Your task to perform on an android device: Open the stopwatch Image 0: 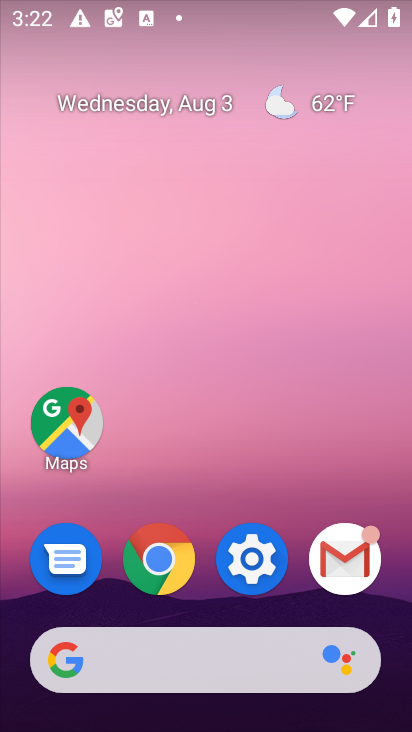
Step 0: press home button
Your task to perform on an android device: Open the stopwatch Image 1: 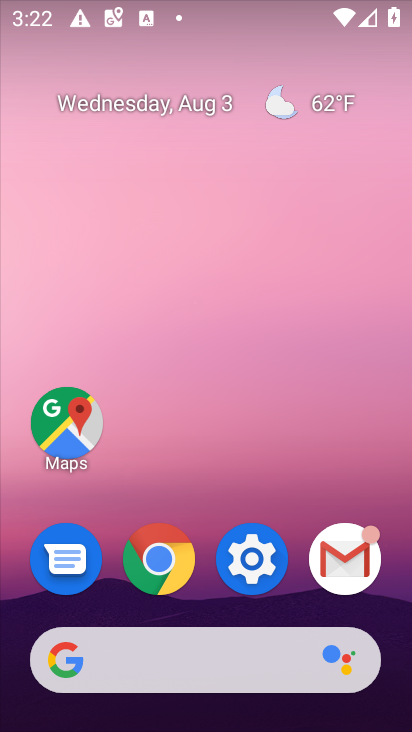
Step 1: drag from (278, 704) to (252, 156)
Your task to perform on an android device: Open the stopwatch Image 2: 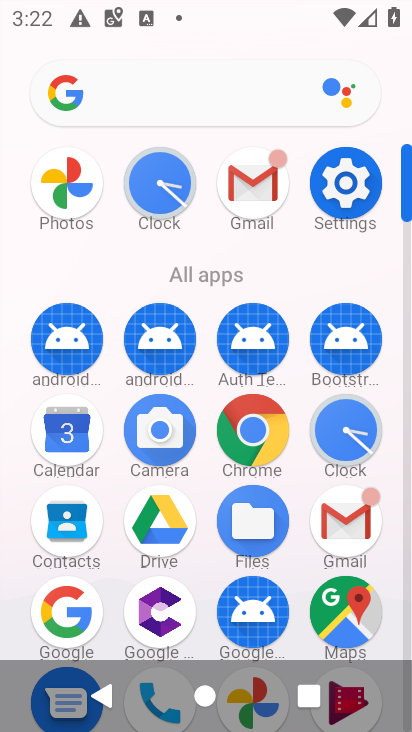
Step 2: click (165, 209)
Your task to perform on an android device: Open the stopwatch Image 3: 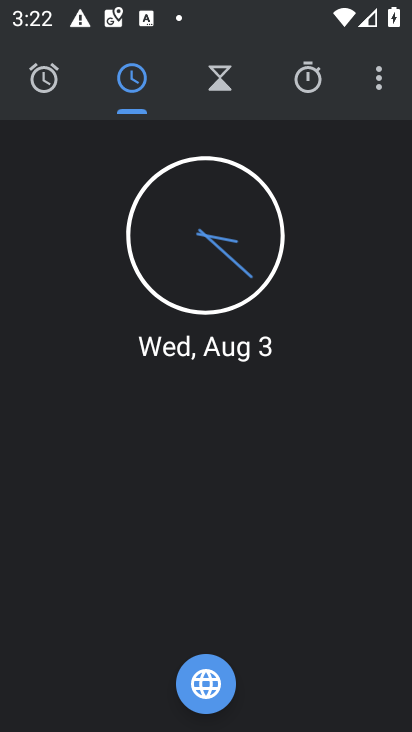
Step 3: click (312, 84)
Your task to perform on an android device: Open the stopwatch Image 4: 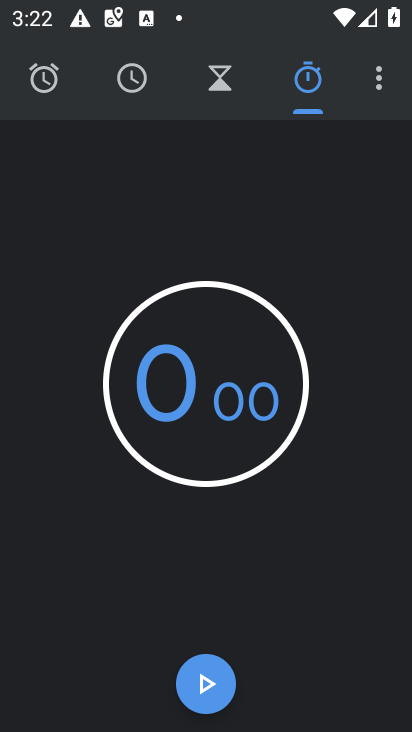
Step 4: task complete